Your task to perform on an android device: Open battery settings Image 0: 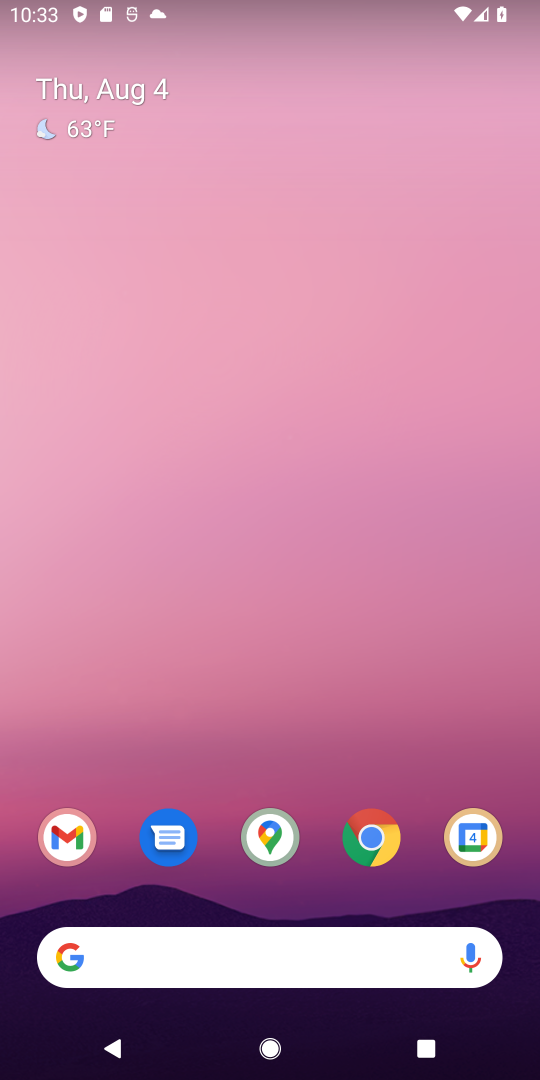
Step 0: press home button
Your task to perform on an android device: Open battery settings Image 1: 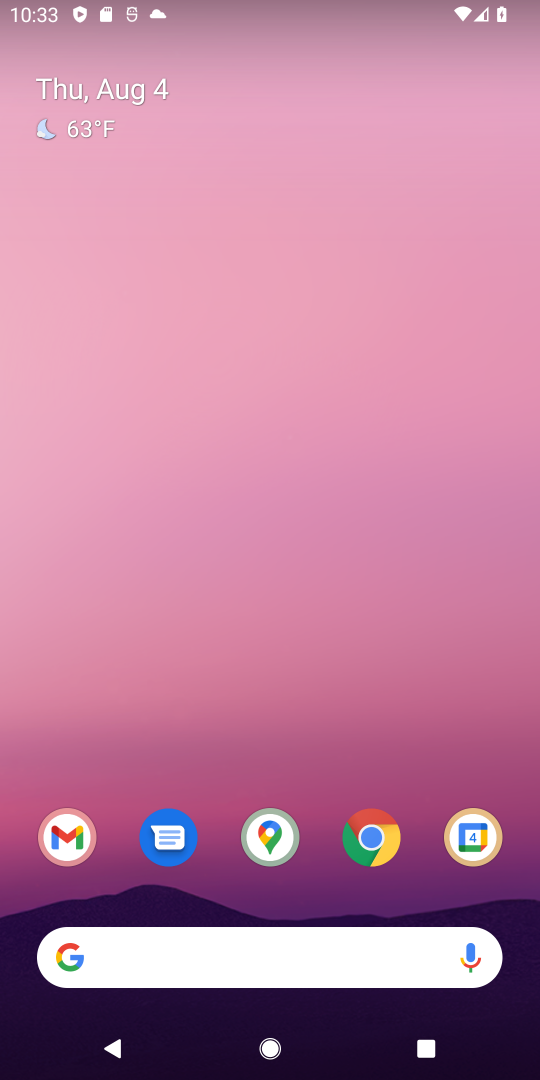
Step 1: drag from (322, 883) to (338, 158)
Your task to perform on an android device: Open battery settings Image 2: 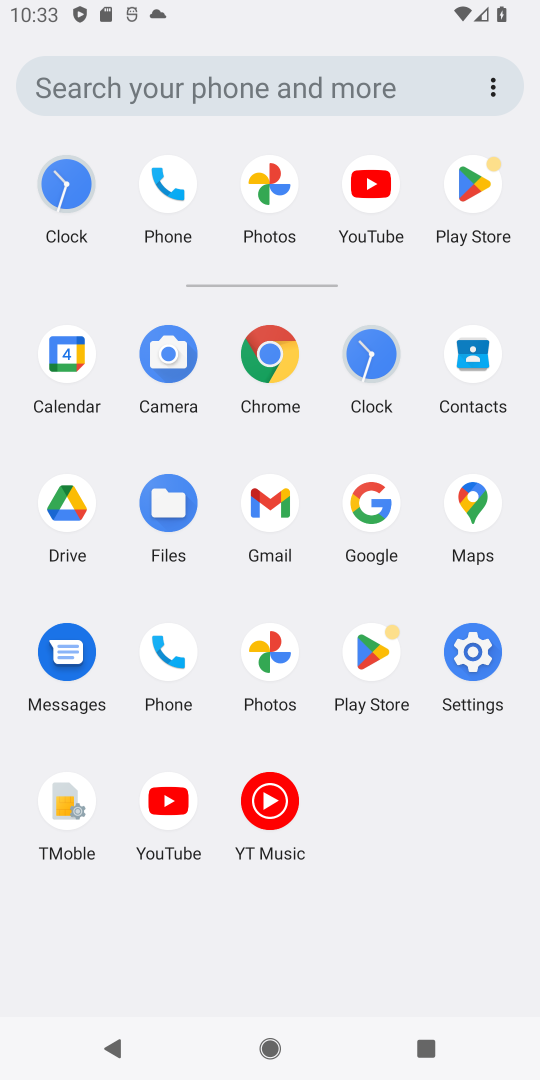
Step 2: click (471, 643)
Your task to perform on an android device: Open battery settings Image 3: 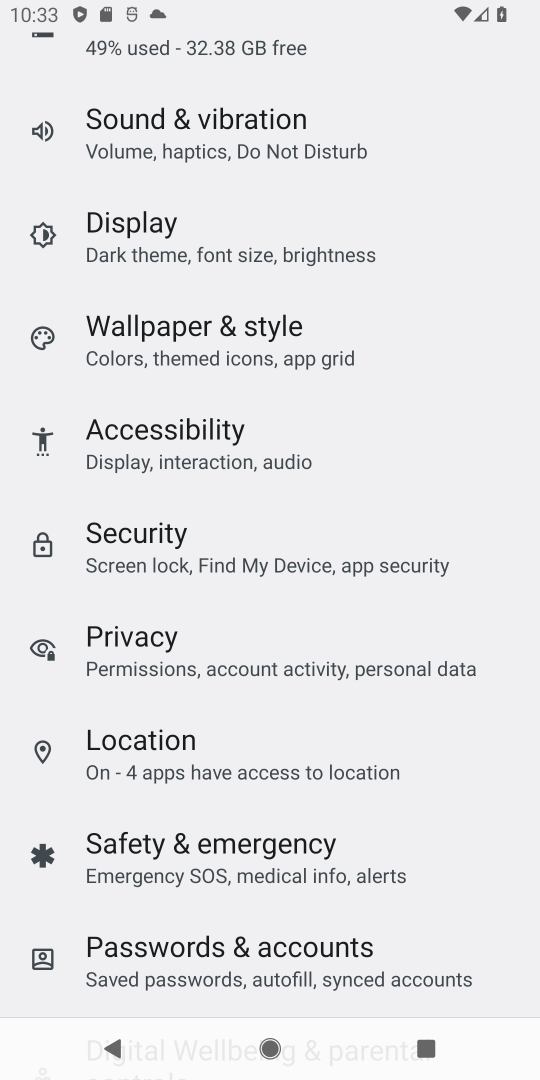
Step 3: drag from (169, 171) to (377, 1023)
Your task to perform on an android device: Open battery settings Image 4: 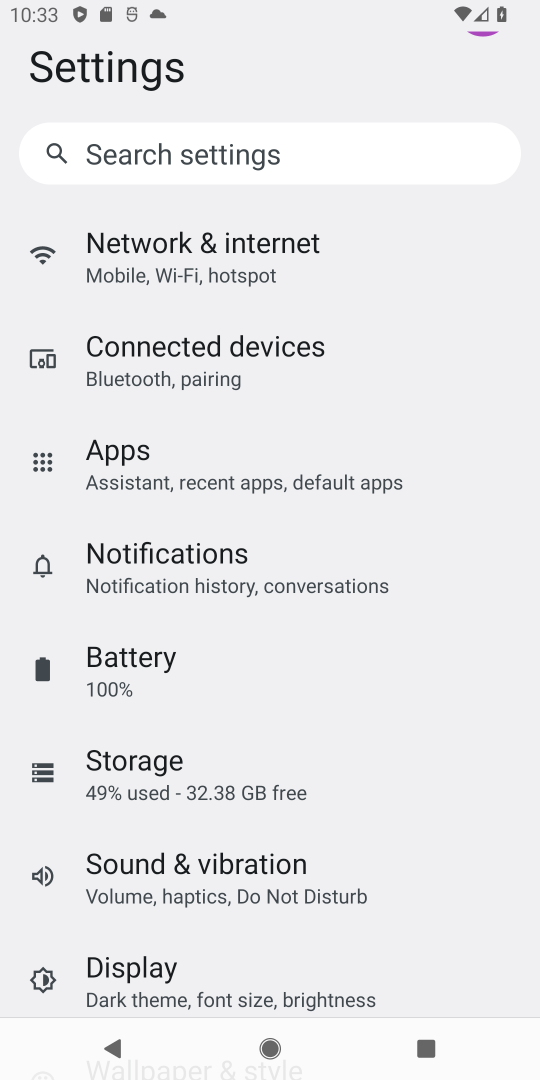
Step 4: click (183, 669)
Your task to perform on an android device: Open battery settings Image 5: 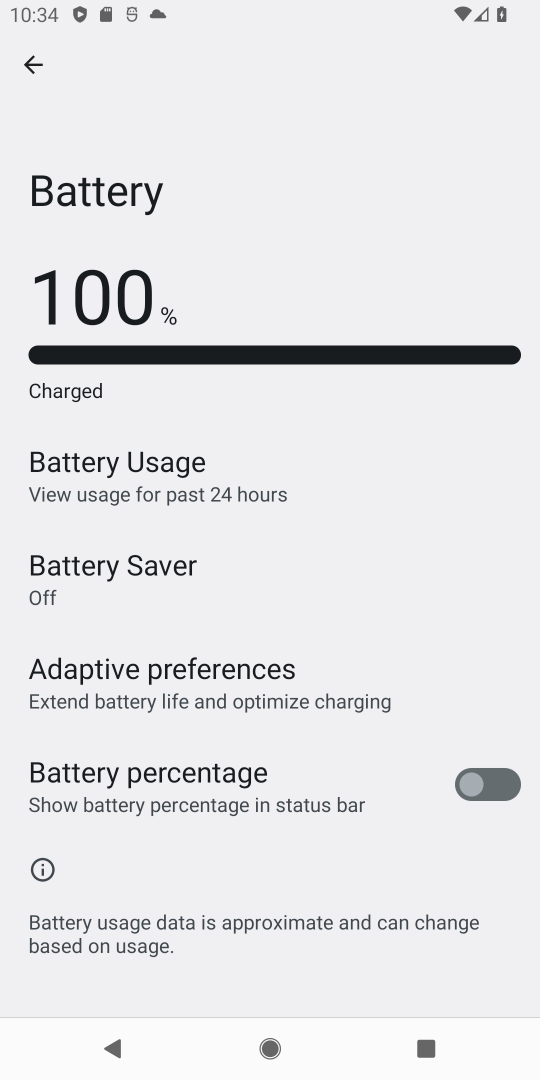
Step 5: task complete